Your task to perform on an android device: Go to sound settings Image 0: 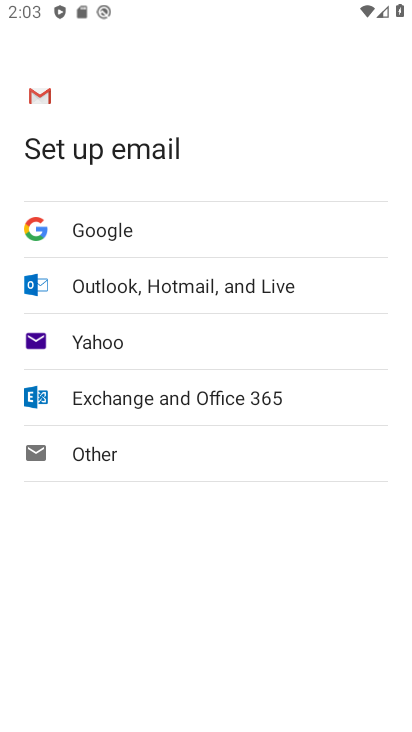
Step 0: press home button
Your task to perform on an android device: Go to sound settings Image 1: 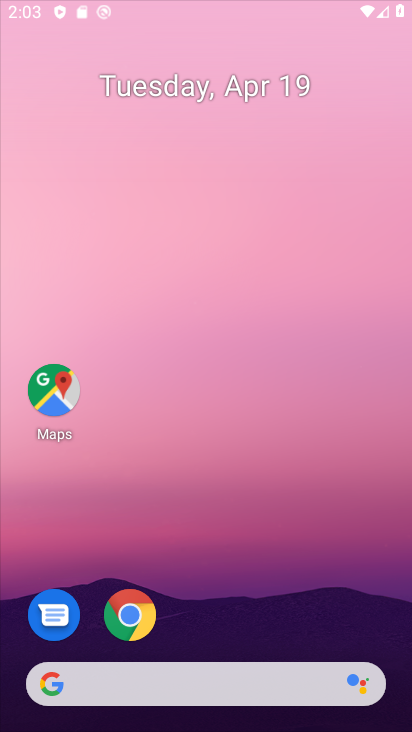
Step 1: drag from (213, 617) to (280, 129)
Your task to perform on an android device: Go to sound settings Image 2: 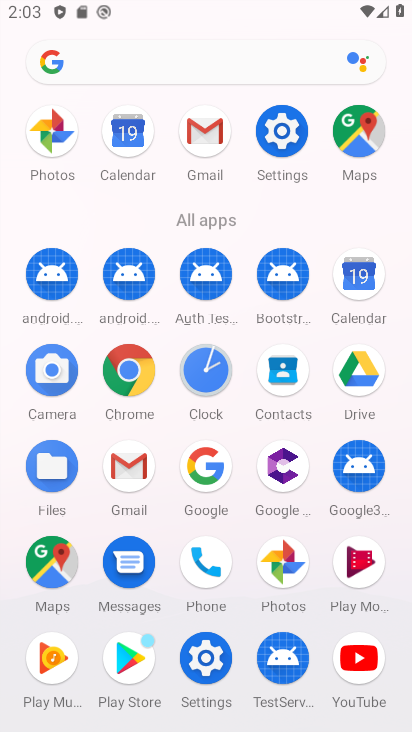
Step 2: click (290, 126)
Your task to perform on an android device: Go to sound settings Image 3: 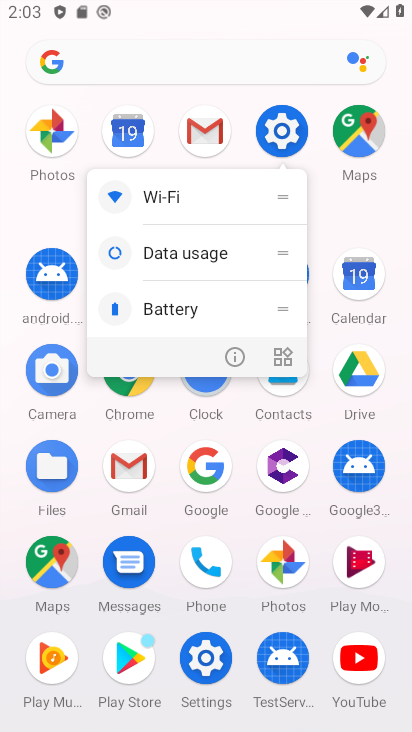
Step 3: click (241, 359)
Your task to perform on an android device: Go to sound settings Image 4: 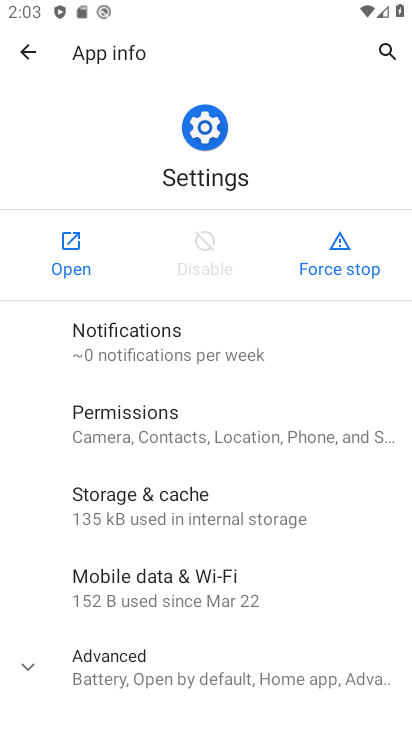
Step 4: click (87, 243)
Your task to perform on an android device: Go to sound settings Image 5: 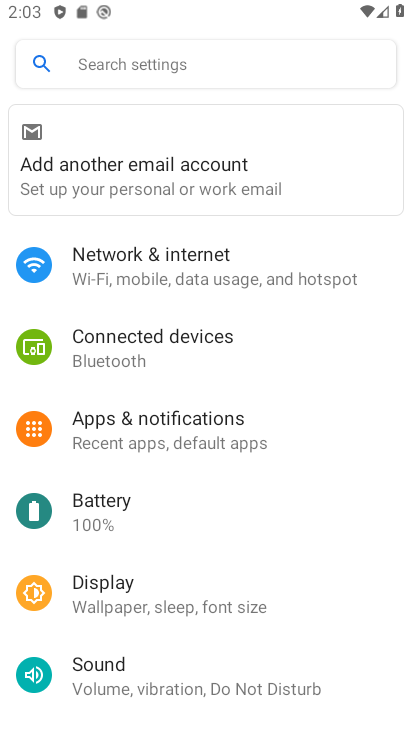
Step 5: click (119, 529)
Your task to perform on an android device: Go to sound settings Image 6: 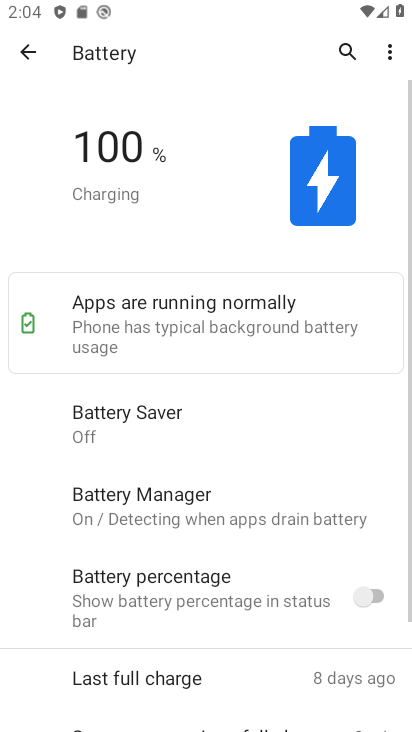
Step 6: click (27, 38)
Your task to perform on an android device: Go to sound settings Image 7: 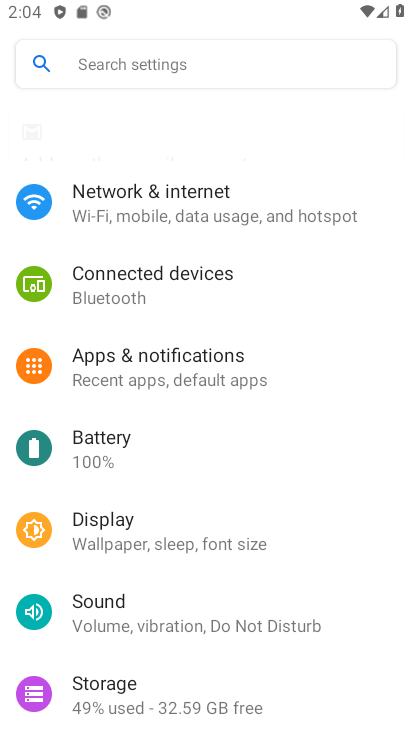
Step 7: drag from (189, 611) to (248, 269)
Your task to perform on an android device: Go to sound settings Image 8: 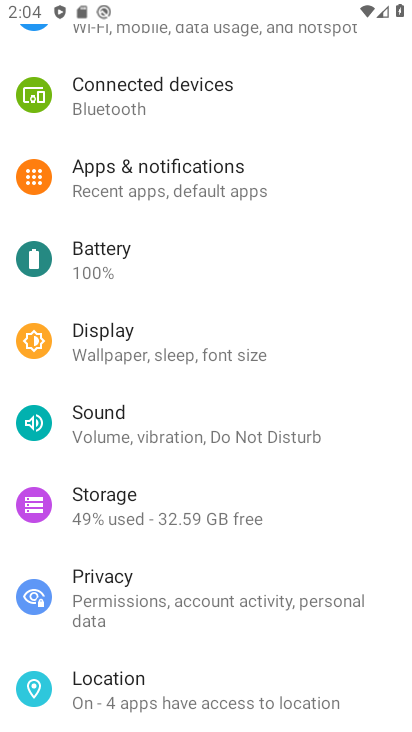
Step 8: click (127, 407)
Your task to perform on an android device: Go to sound settings Image 9: 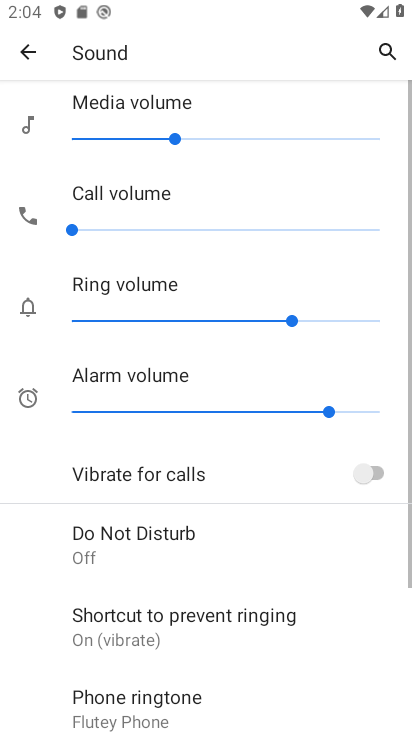
Step 9: task complete